Your task to perform on an android device: Open Google Maps Image 0: 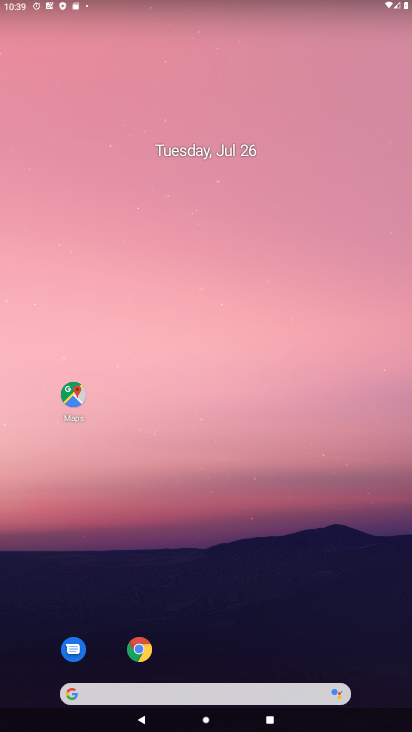
Step 0: drag from (184, 622) to (257, 200)
Your task to perform on an android device: Open Google Maps Image 1: 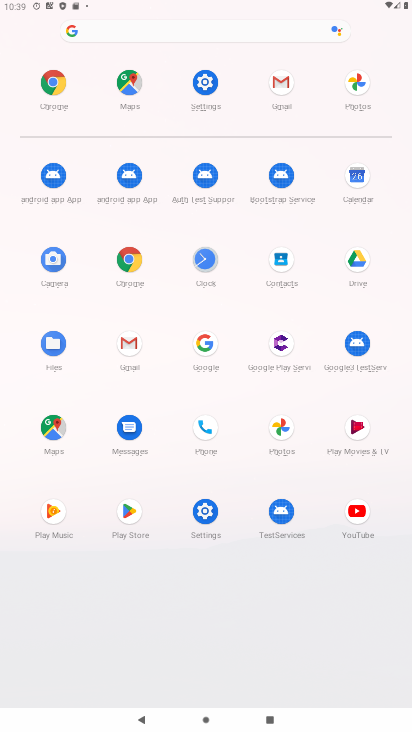
Step 1: click (53, 424)
Your task to perform on an android device: Open Google Maps Image 2: 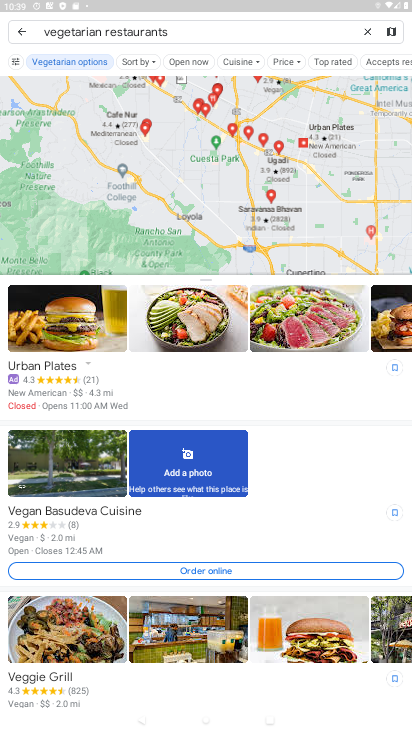
Step 2: task complete